Your task to perform on an android device: set the stopwatch Image 0: 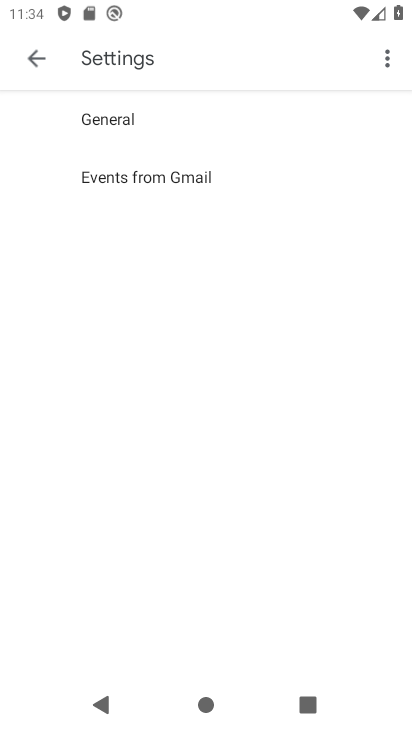
Step 0: press home button
Your task to perform on an android device: set the stopwatch Image 1: 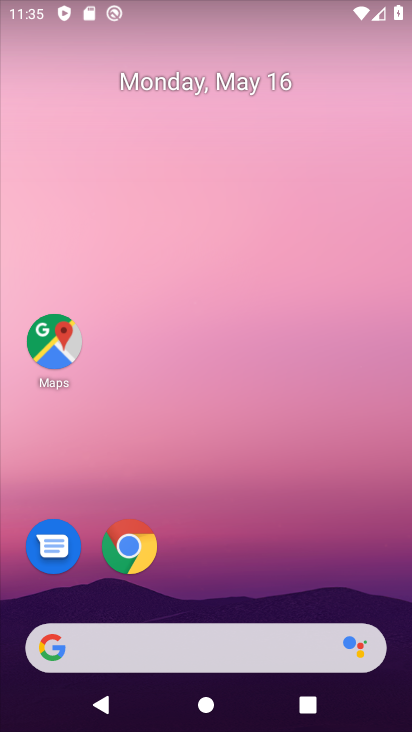
Step 1: drag from (403, 635) to (342, 64)
Your task to perform on an android device: set the stopwatch Image 2: 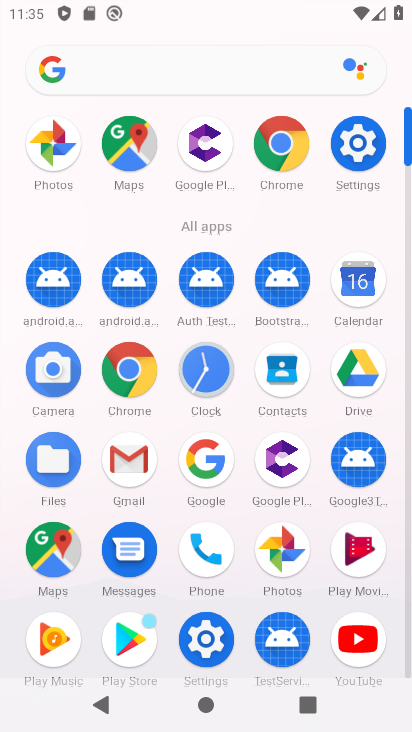
Step 2: click (407, 663)
Your task to perform on an android device: set the stopwatch Image 3: 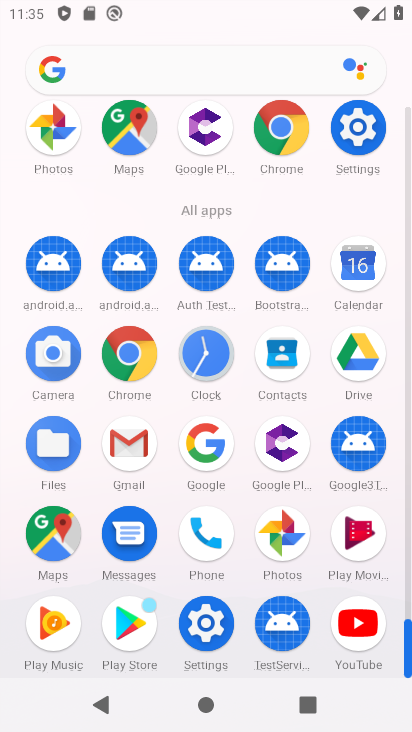
Step 3: click (206, 354)
Your task to perform on an android device: set the stopwatch Image 4: 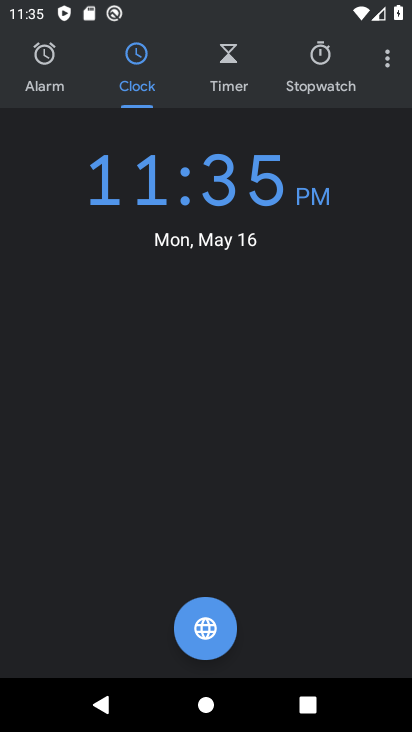
Step 4: click (322, 52)
Your task to perform on an android device: set the stopwatch Image 5: 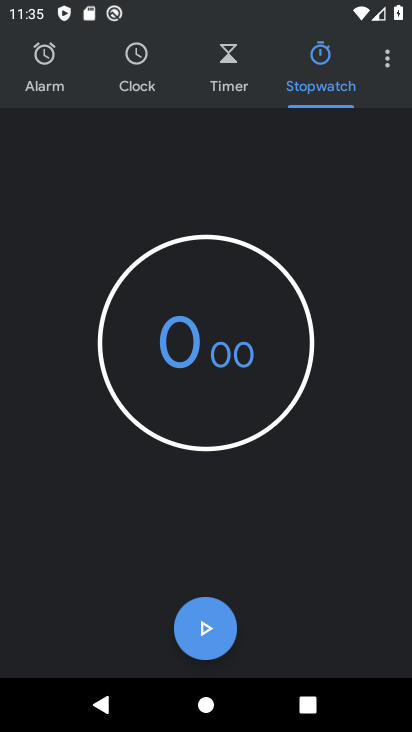
Step 5: task complete